Your task to perform on an android device: Open the web browser Image 0: 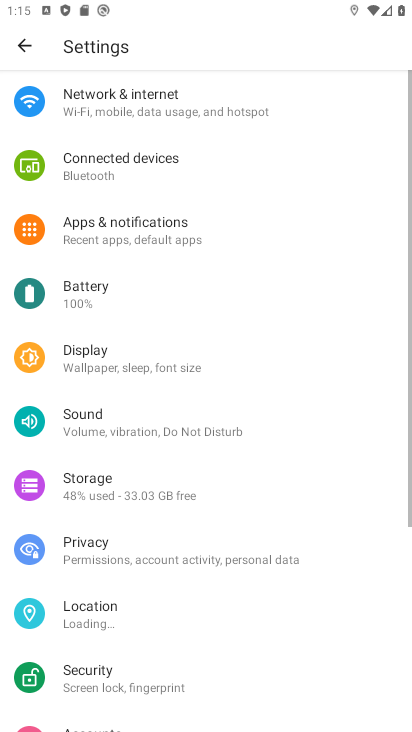
Step 0: press home button
Your task to perform on an android device: Open the web browser Image 1: 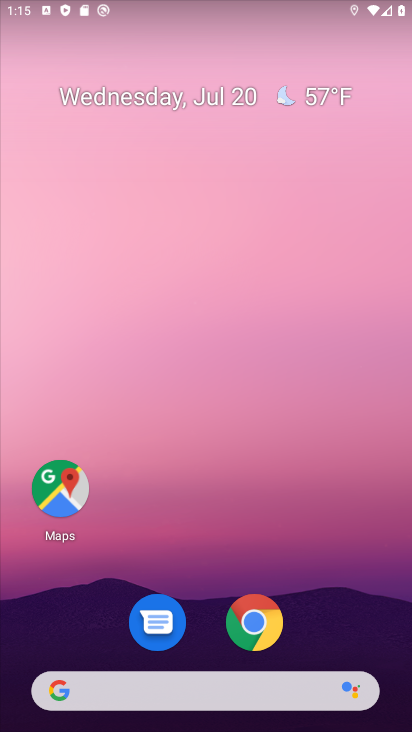
Step 1: click (246, 614)
Your task to perform on an android device: Open the web browser Image 2: 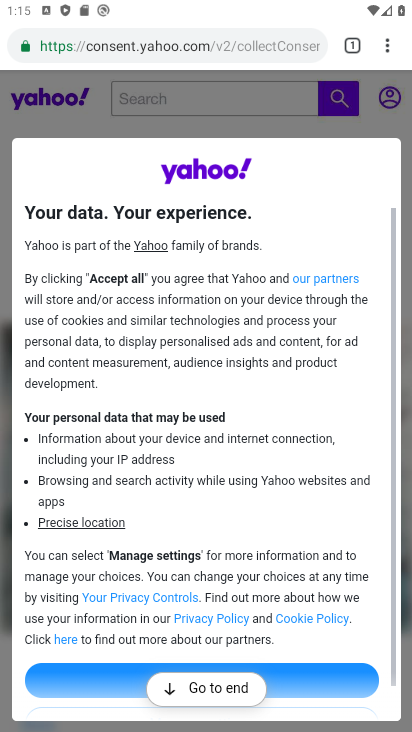
Step 2: task complete